Your task to perform on an android device: Go to privacy settings Image 0: 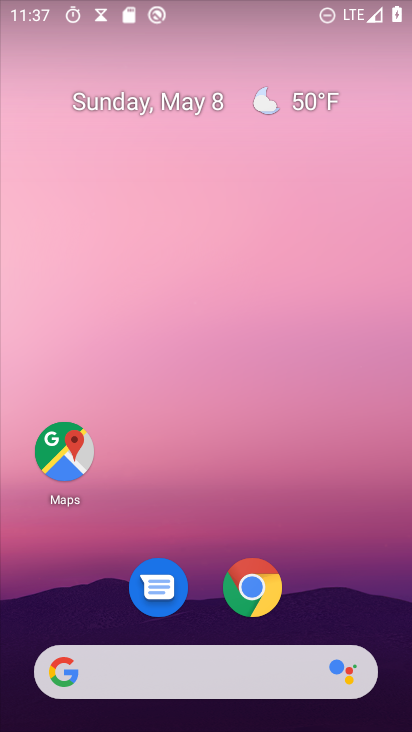
Step 0: click (255, 585)
Your task to perform on an android device: Go to privacy settings Image 1: 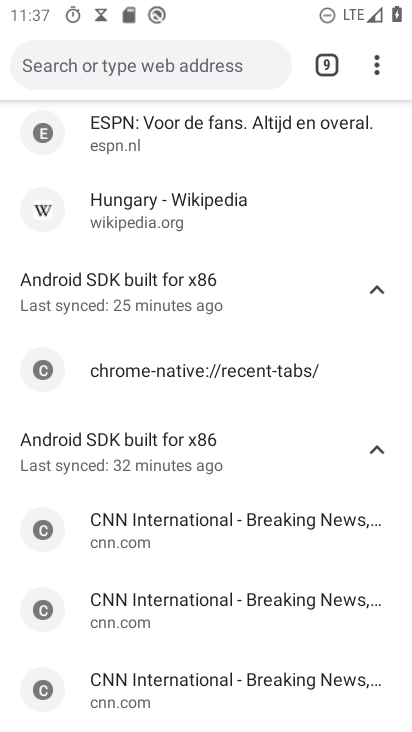
Step 1: drag from (379, 67) to (165, 543)
Your task to perform on an android device: Go to privacy settings Image 2: 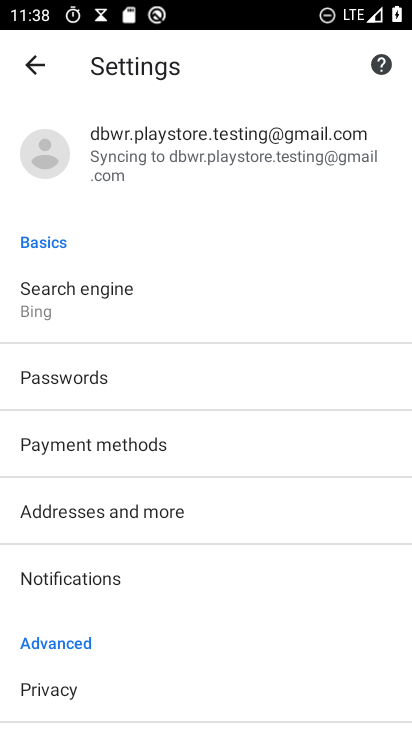
Step 2: click (51, 680)
Your task to perform on an android device: Go to privacy settings Image 3: 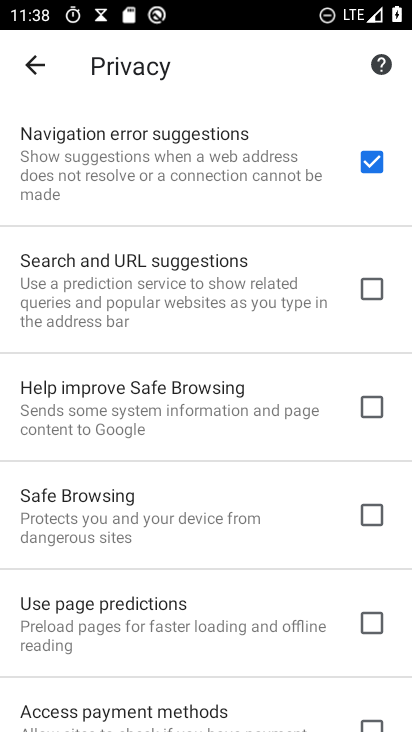
Step 3: task complete